Your task to perform on an android device: Open location settings Image 0: 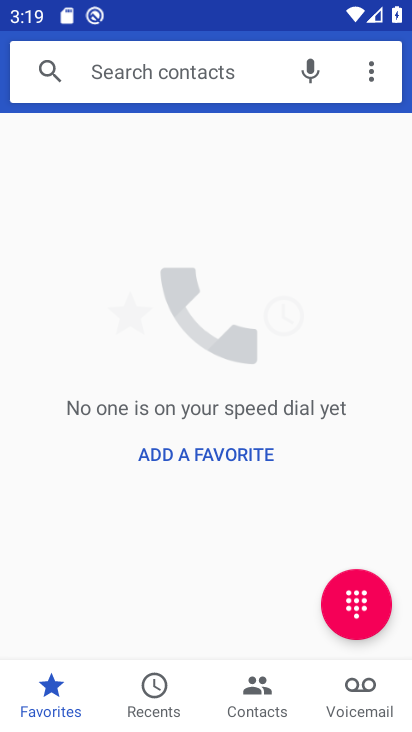
Step 0: press home button
Your task to perform on an android device: Open location settings Image 1: 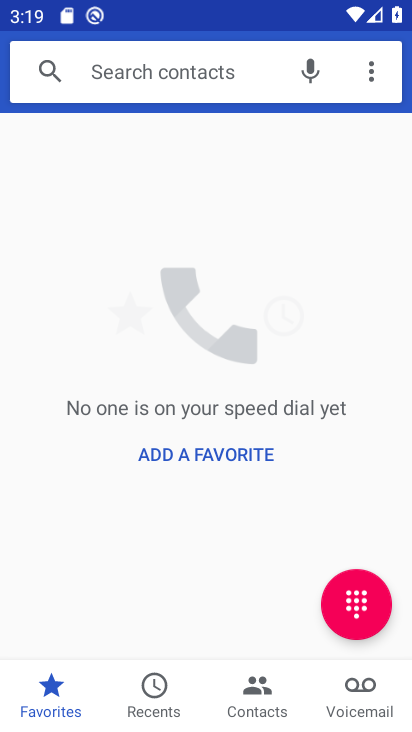
Step 1: press home button
Your task to perform on an android device: Open location settings Image 2: 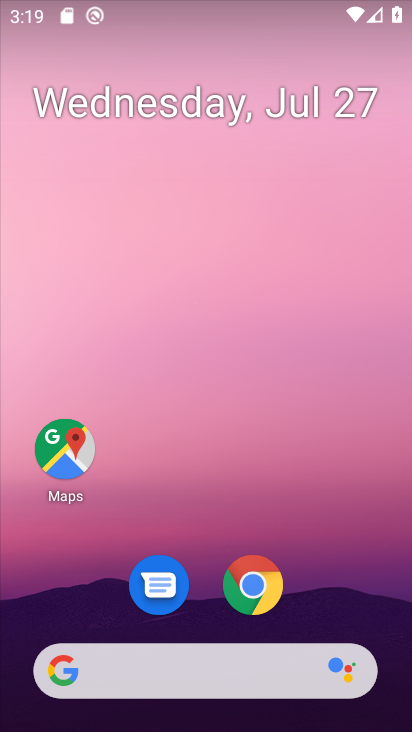
Step 2: drag from (342, 579) to (300, 62)
Your task to perform on an android device: Open location settings Image 3: 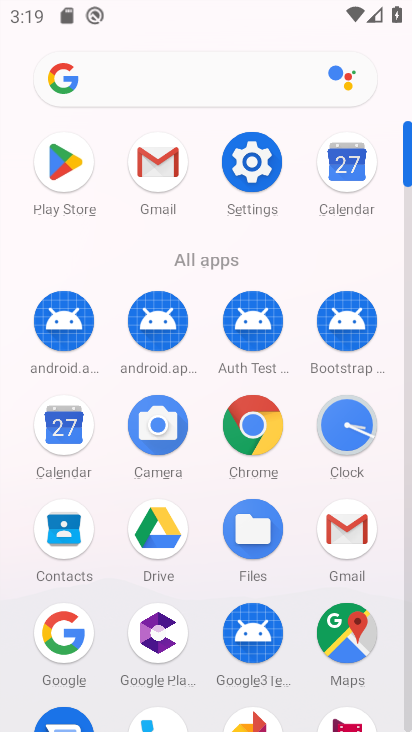
Step 3: click (241, 169)
Your task to perform on an android device: Open location settings Image 4: 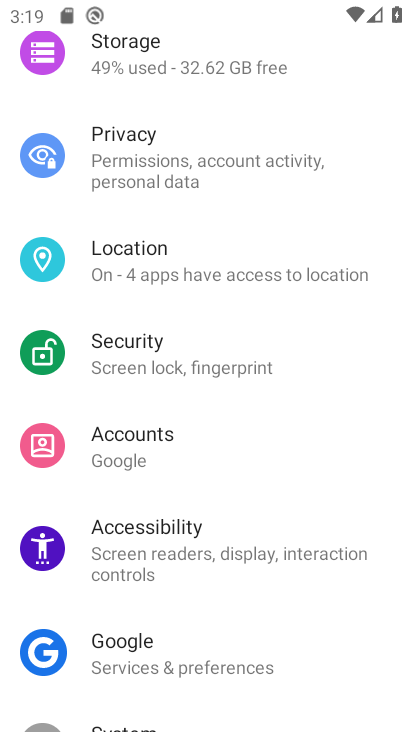
Step 4: click (246, 262)
Your task to perform on an android device: Open location settings Image 5: 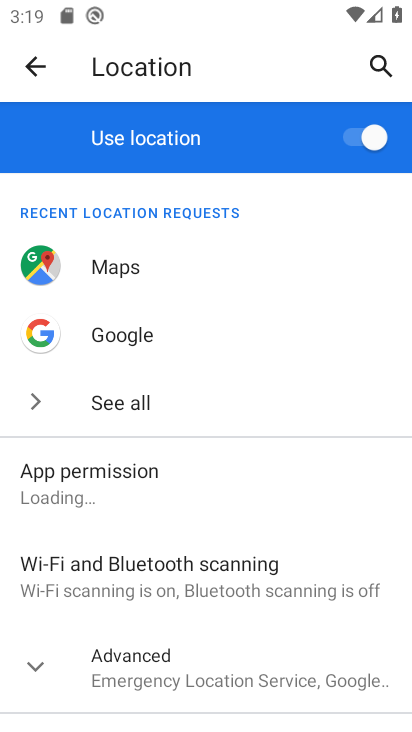
Step 5: drag from (264, 492) to (265, 169)
Your task to perform on an android device: Open location settings Image 6: 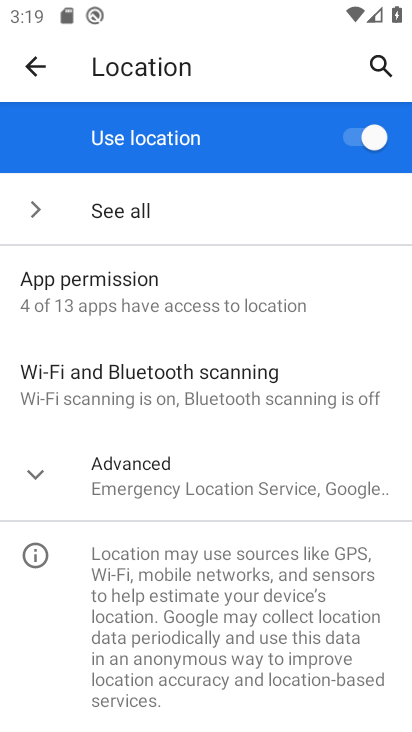
Step 6: click (28, 471)
Your task to perform on an android device: Open location settings Image 7: 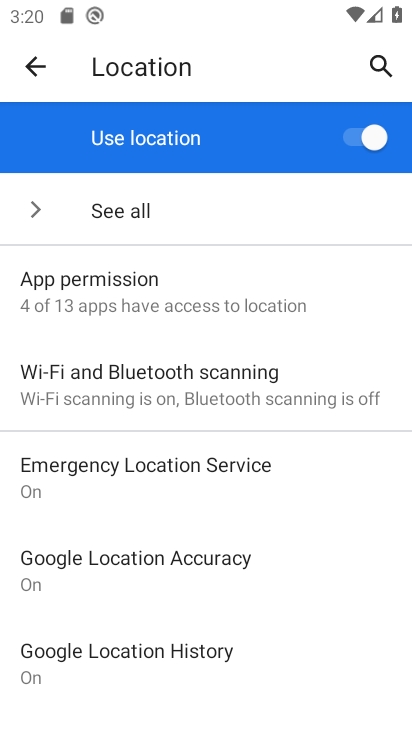
Step 7: task complete